Your task to perform on an android device: clear all cookies in the chrome app Image 0: 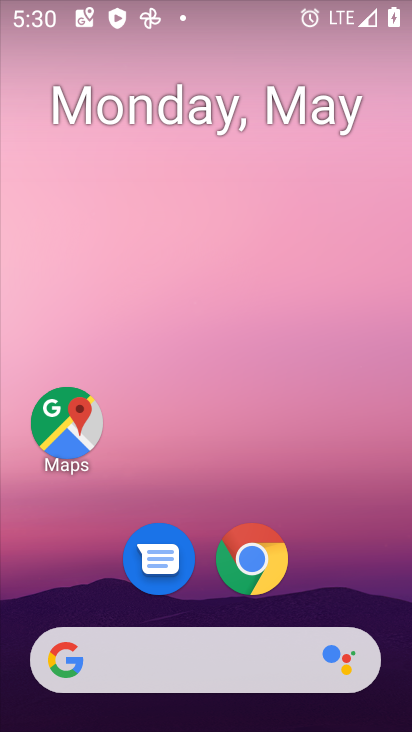
Step 0: drag from (357, 587) to (408, 404)
Your task to perform on an android device: clear all cookies in the chrome app Image 1: 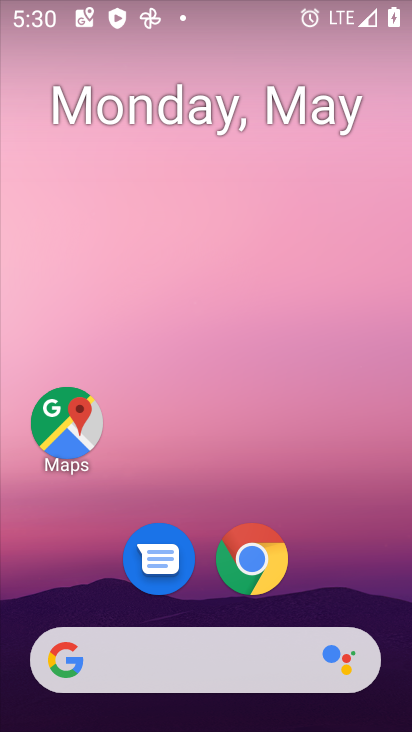
Step 1: drag from (282, 649) to (341, 102)
Your task to perform on an android device: clear all cookies in the chrome app Image 2: 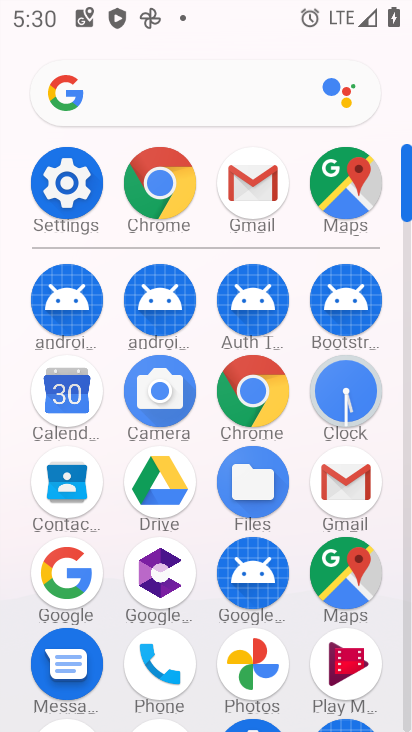
Step 2: click (273, 402)
Your task to perform on an android device: clear all cookies in the chrome app Image 3: 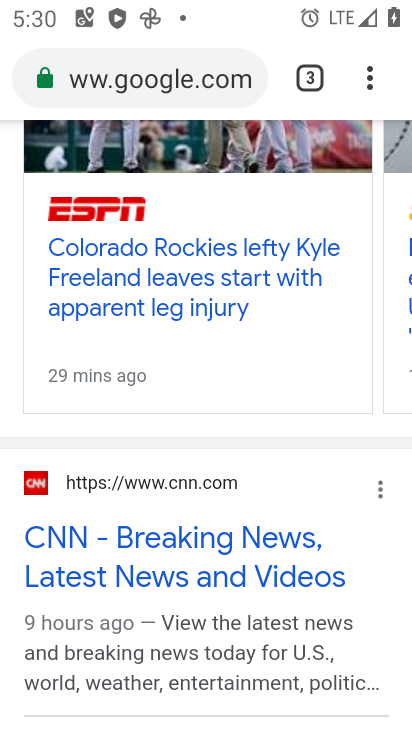
Step 3: drag from (372, 71) to (143, 628)
Your task to perform on an android device: clear all cookies in the chrome app Image 4: 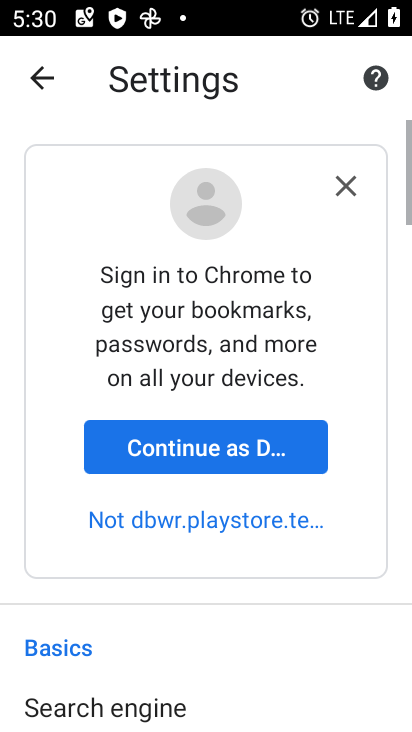
Step 4: drag from (178, 685) to (261, 62)
Your task to perform on an android device: clear all cookies in the chrome app Image 5: 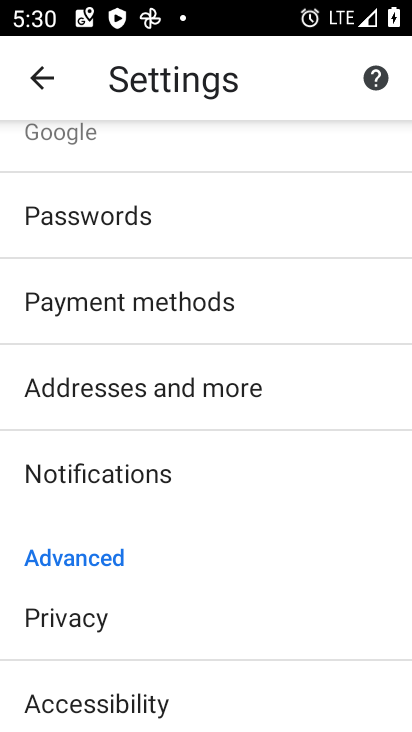
Step 5: click (205, 623)
Your task to perform on an android device: clear all cookies in the chrome app Image 6: 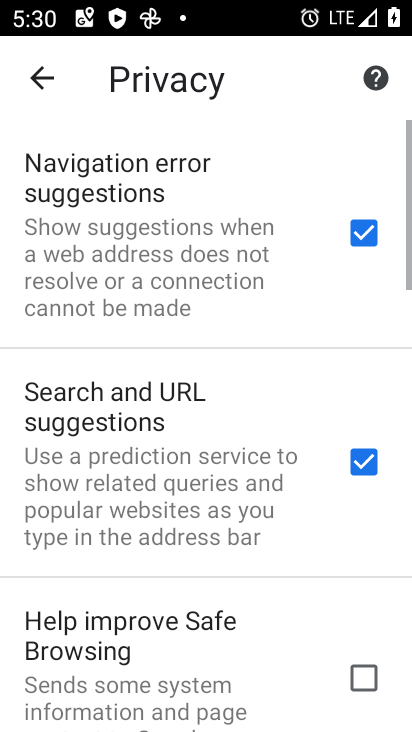
Step 6: drag from (216, 711) to (328, 11)
Your task to perform on an android device: clear all cookies in the chrome app Image 7: 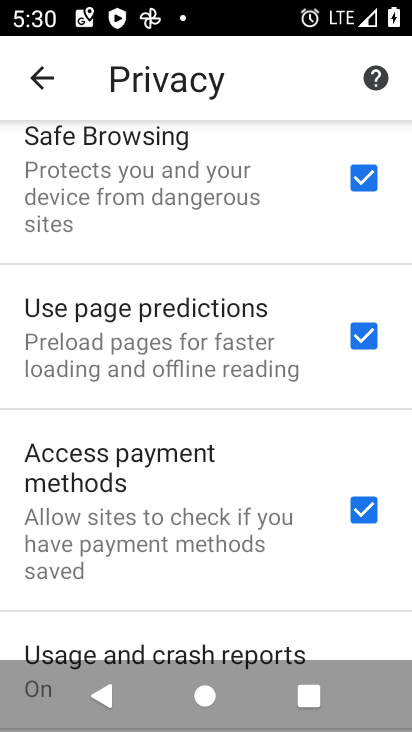
Step 7: drag from (292, 583) to (326, 24)
Your task to perform on an android device: clear all cookies in the chrome app Image 8: 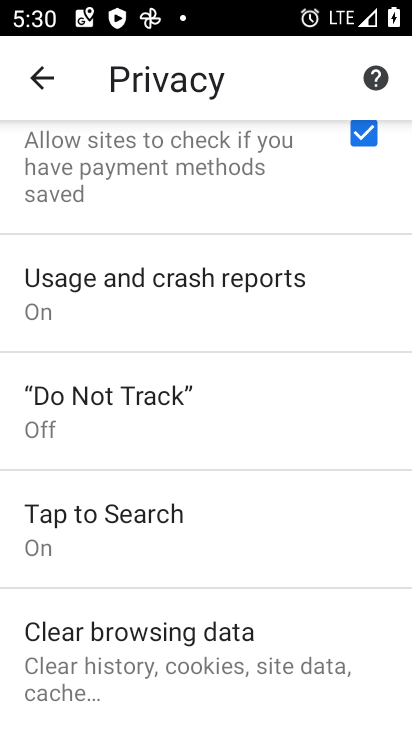
Step 8: click (204, 660)
Your task to perform on an android device: clear all cookies in the chrome app Image 9: 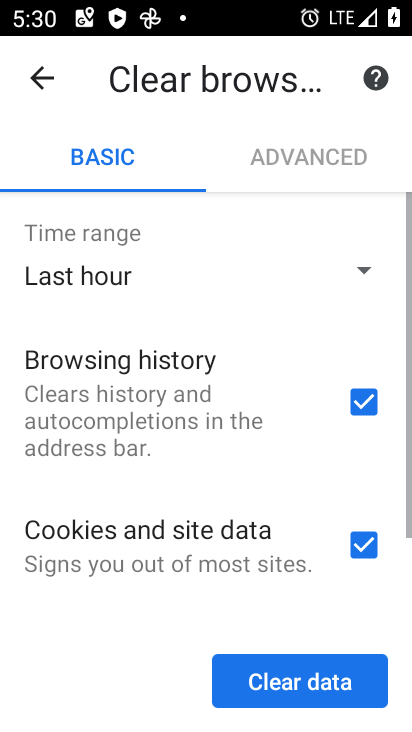
Step 9: click (263, 691)
Your task to perform on an android device: clear all cookies in the chrome app Image 10: 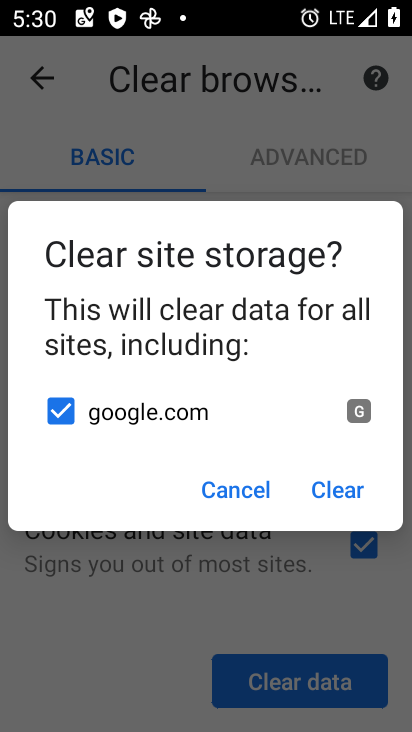
Step 10: click (337, 488)
Your task to perform on an android device: clear all cookies in the chrome app Image 11: 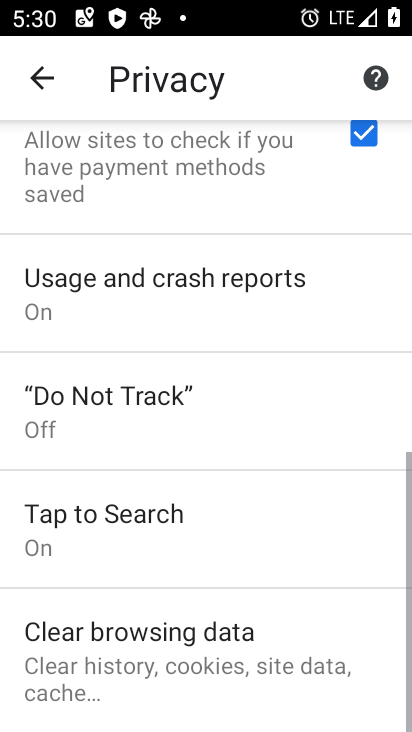
Step 11: task complete